Your task to perform on an android device: Go to internet settings Image 0: 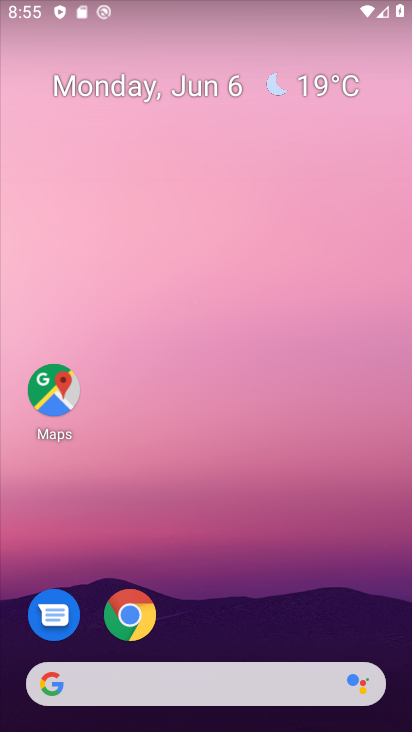
Step 0: drag from (191, 653) to (156, 157)
Your task to perform on an android device: Go to internet settings Image 1: 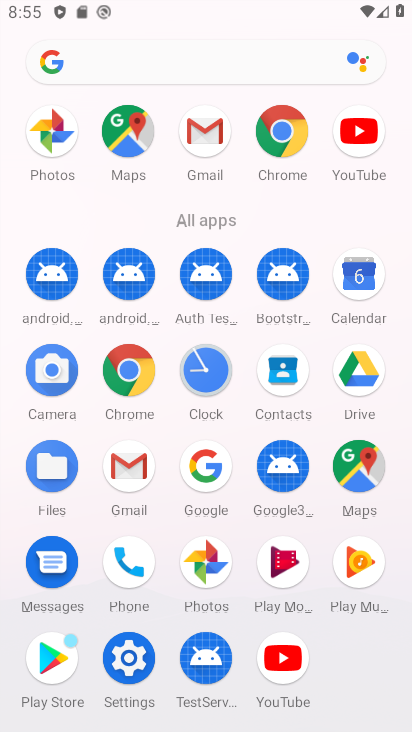
Step 1: click (130, 664)
Your task to perform on an android device: Go to internet settings Image 2: 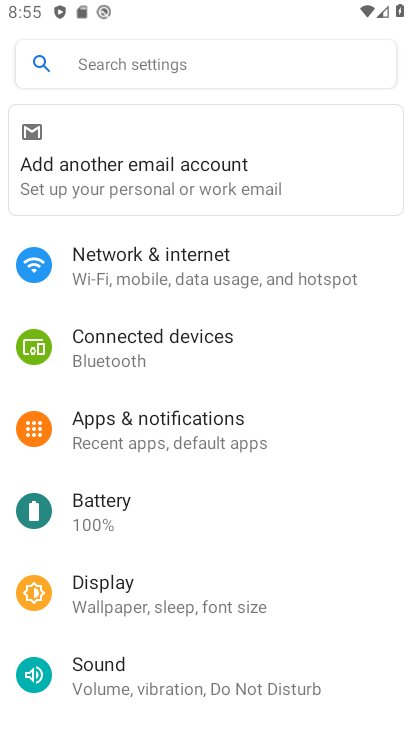
Step 2: click (155, 242)
Your task to perform on an android device: Go to internet settings Image 3: 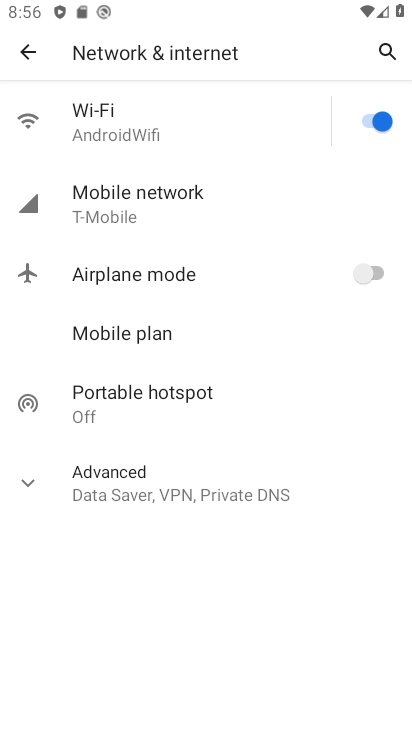
Step 3: click (186, 239)
Your task to perform on an android device: Go to internet settings Image 4: 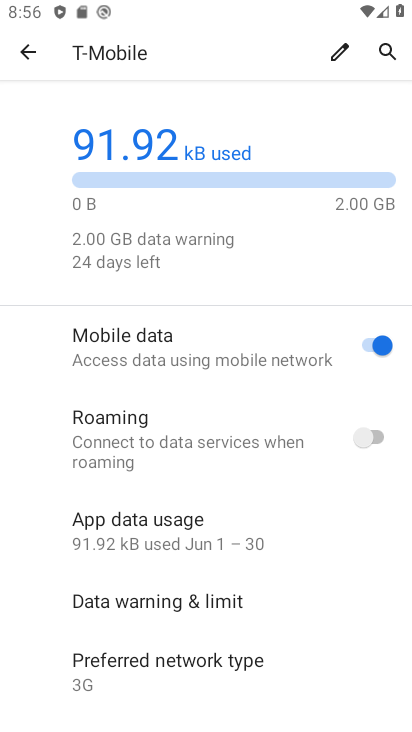
Step 4: task complete